Your task to perform on an android device: turn off javascript in the chrome app Image 0: 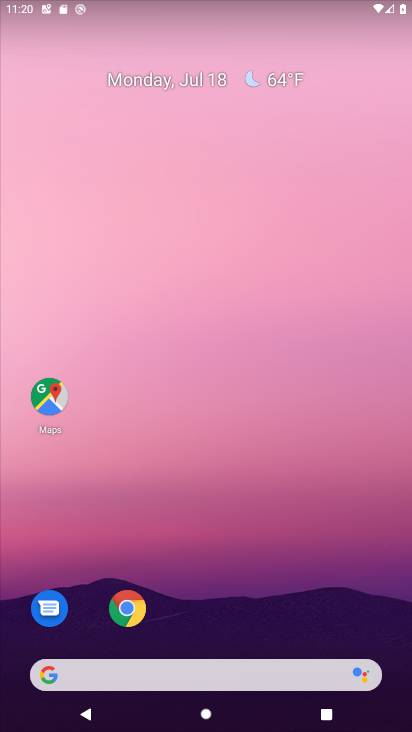
Step 0: drag from (314, 289) to (321, 26)
Your task to perform on an android device: turn off javascript in the chrome app Image 1: 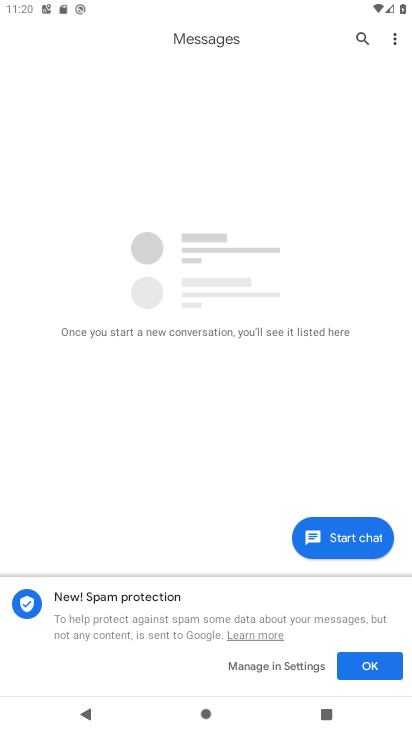
Step 1: press home button
Your task to perform on an android device: turn off javascript in the chrome app Image 2: 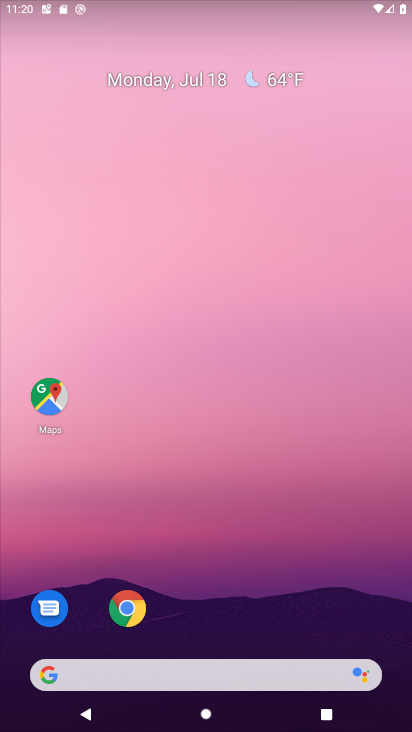
Step 2: drag from (246, 586) to (271, 59)
Your task to perform on an android device: turn off javascript in the chrome app Image 3: 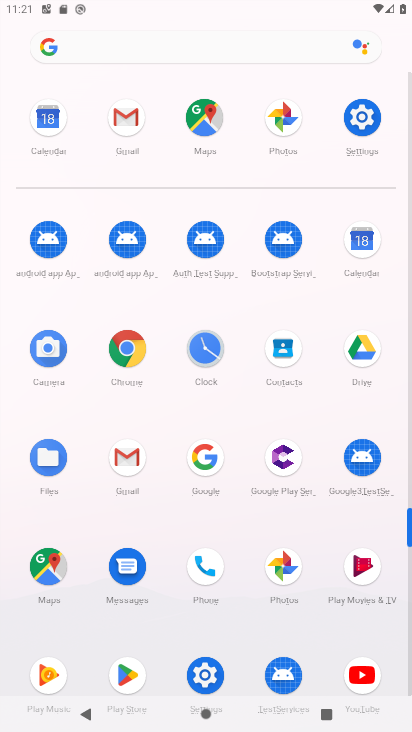
Step 3: click (134, 352)
Your task to perform on an android device: turn off javascript in the chrome app Image 4: 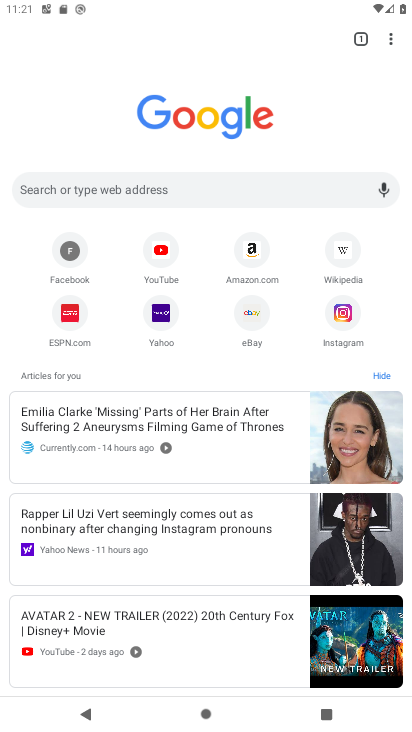
Step 4: click (385, 43)
Your task to perform on an android device: turn off javascript in the chrome app Image 5: 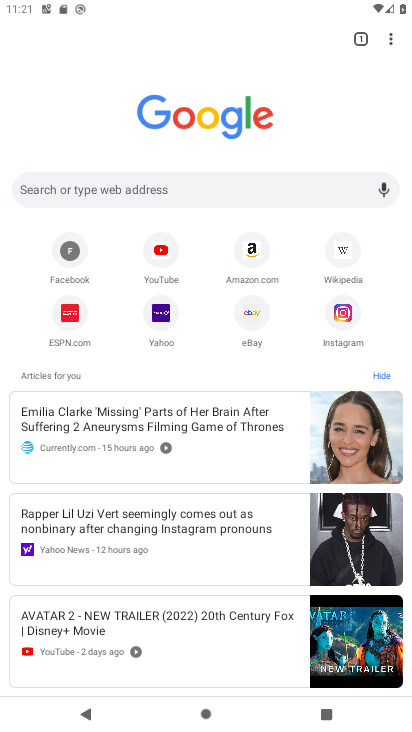
Step 5: click (394, 32)
Your task to perform on an android device: turn off javascript in the chrome app Image 6: 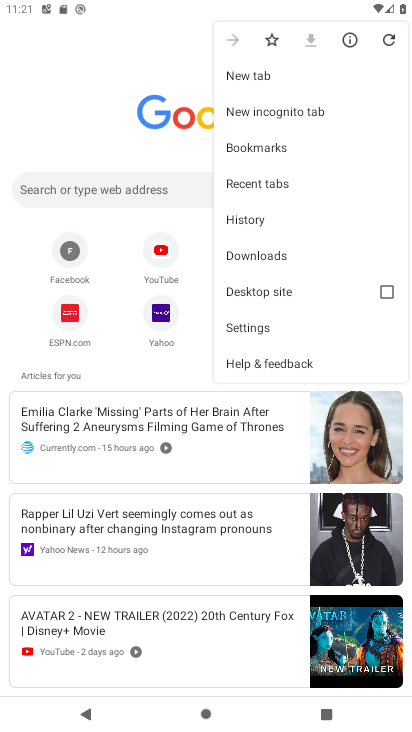
Step 6: click (260, 327)
Your task to perform on an android device: turn off javascript in the chrome app Image 7: 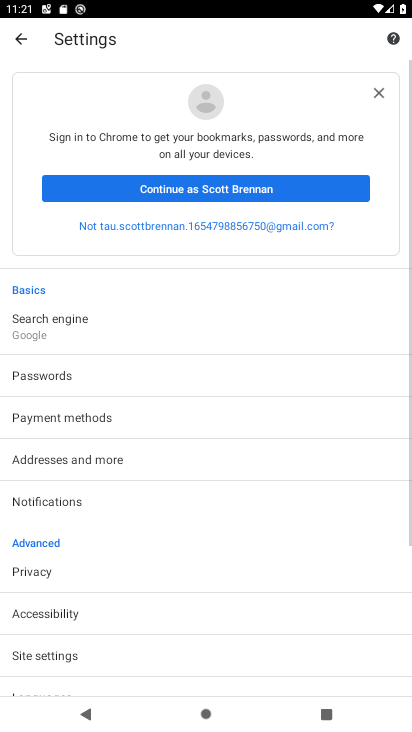
Step 7: drag from (72, 590) to (95, 357)
Your task to perform on an android device: turn off javascript in the chrome app Image 8: 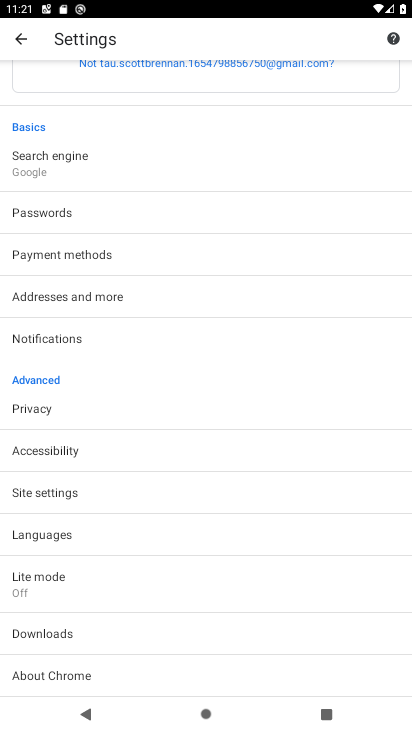
Step 8: click (66, 497)
Your task to perform on an android device: turn off javascript in the chrome app Image 9: 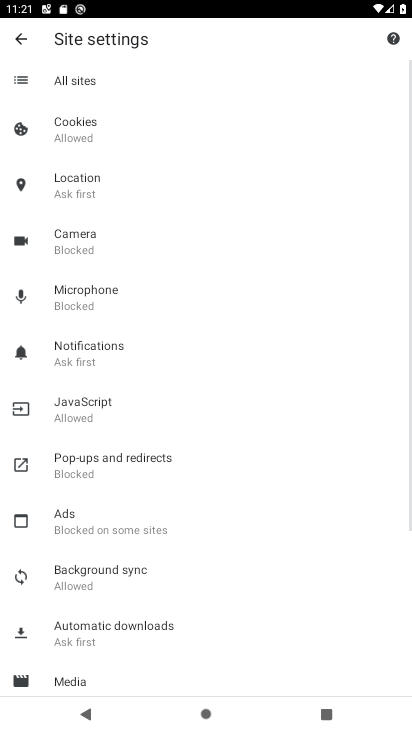
Step 9: click (124, 417)
Your task to perform on an android device: turn off javascript in the chrome app Image 10: 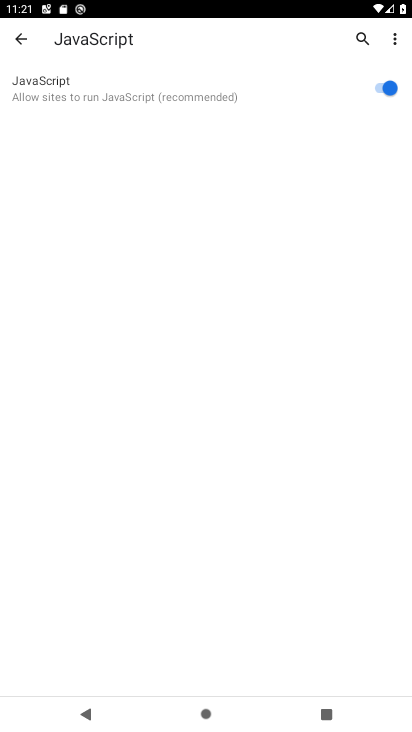
Step 10: click (386, 98)
Your task to perform on an android device: turn off javascript in the chrome app Image 11: 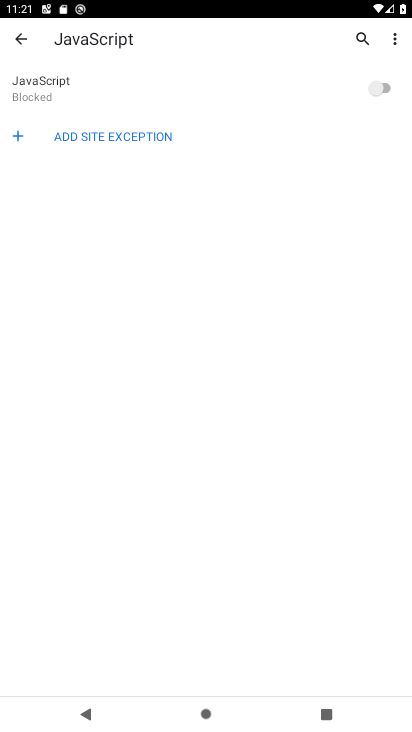
Step 11: task complete